Your task to perform on an android device: Open the files app Image 0: 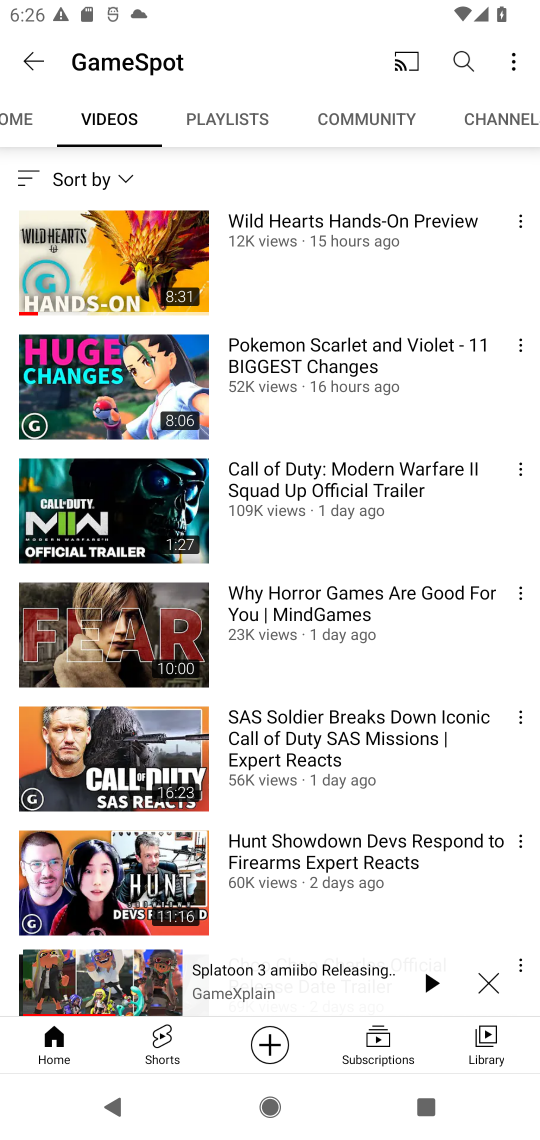
Step 0: press home button
Your task to perform on an android device: Open the files app Image 1: 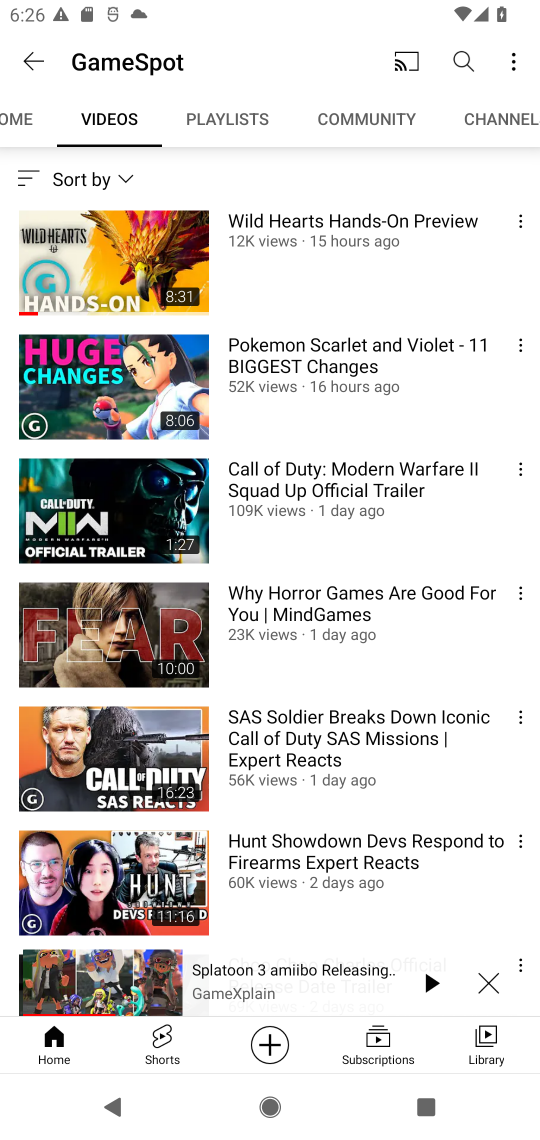
Step 1: press home button
Your task to perform on an android device: Open the files app Image 2: 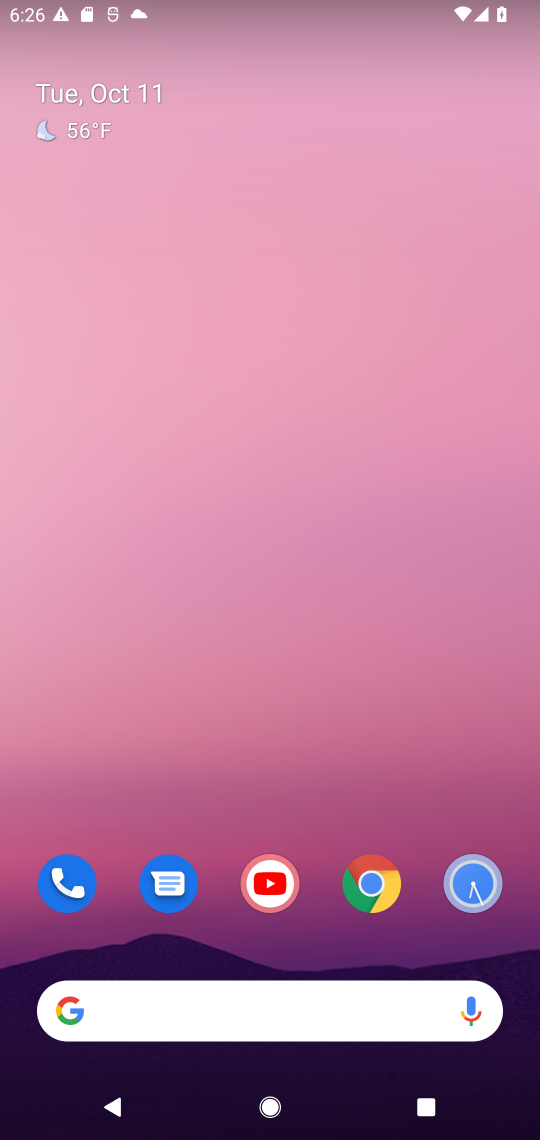
Step 2: drag from (312, 960) to (267, 68)
Your task to perform on an android device: Open the files app Image 3: 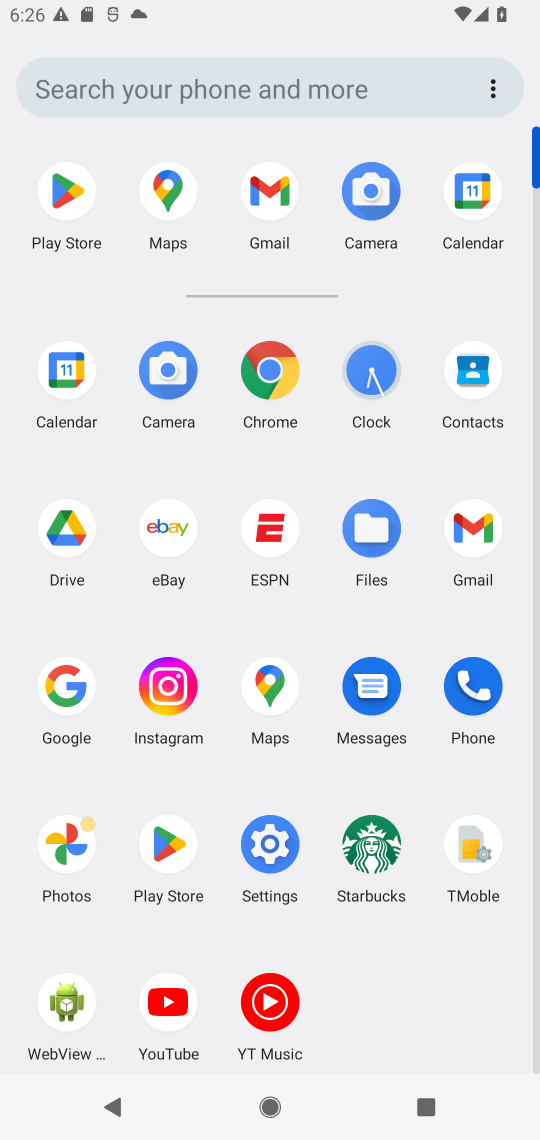
Step 3: click (368, 533)
Your task to perform on an android device: Open the files app Image 4: 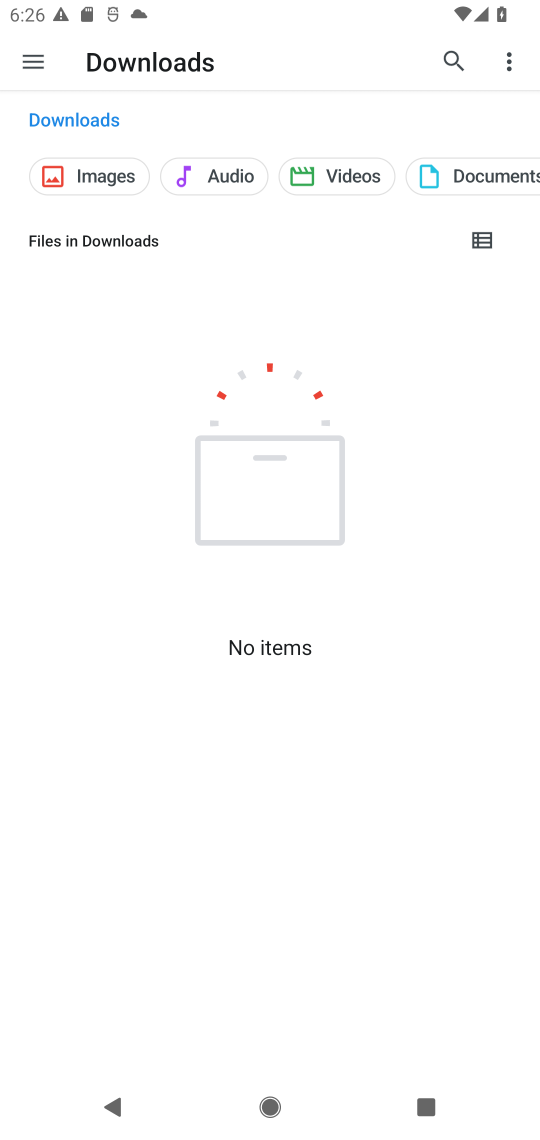
Step 4: task complete